Your task to perform on an android device: Go to Yahoo.com Image 0: 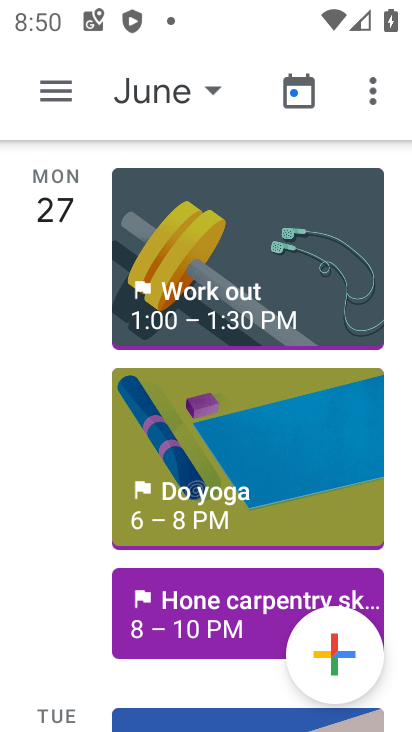
Step 0: press home button
Your task to perform on an android device: Go to Yahoo.com Image 1: 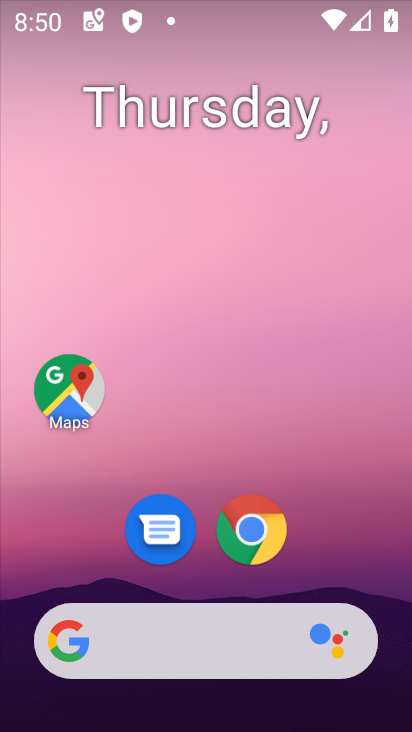
Step 1: click (295, 537)
Your task to perform on an android device: Go to Yahoo.com Image 2: 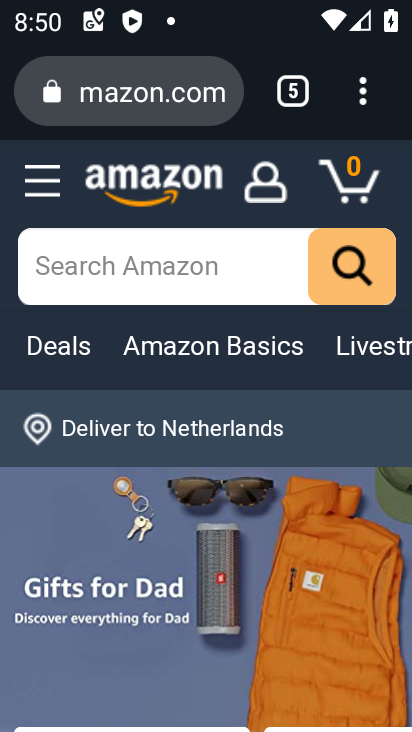
Step 2: click (364, 102)
Your task to perform on an android device: Go to Yahoo.com Image 3: 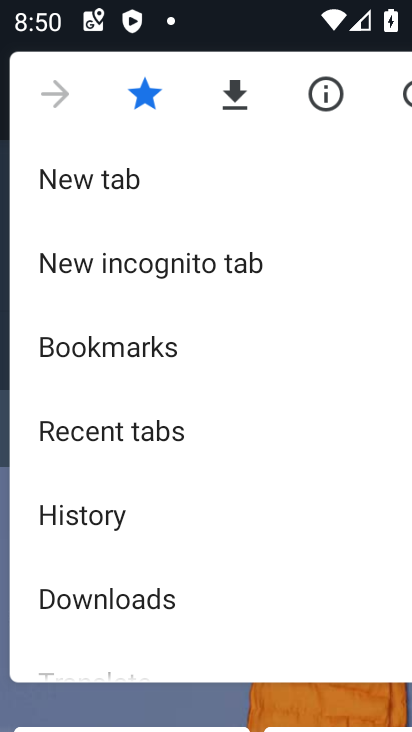
Step 3: click (72, 178)
Your task to perform on an android device: Go to Yahoo.com Image 4: 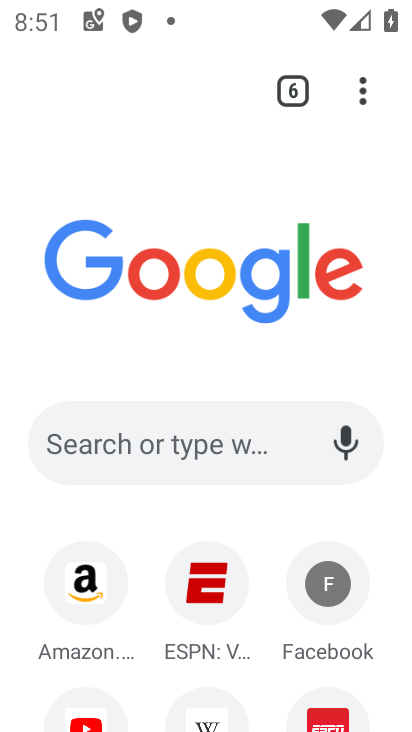
Step 4: click (228, 441)
Your task to perform on an android device: Go to Yahoo.com Image 5: 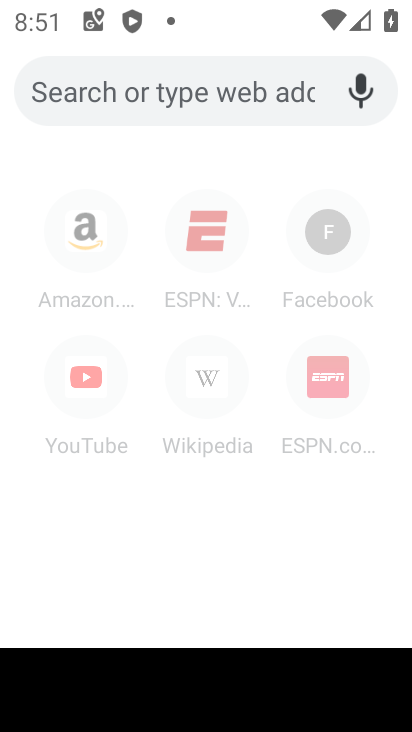
Step 5: type "yahoo.com"
Your task to perform on an android device: Go to Yahoo.com Image 6: 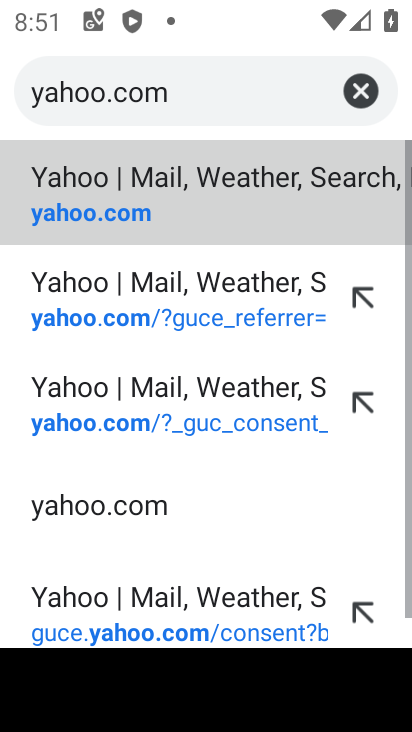
Step 6: click (118, 194)
Your task to perform on an android device: Go to Yahoo.com Image 7: 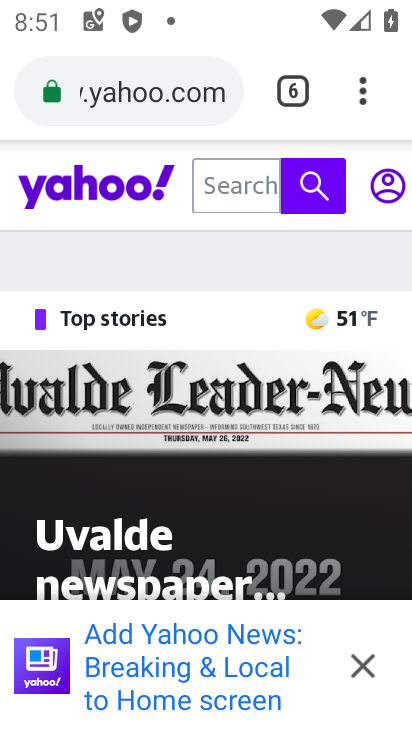
Step 7: task complete